Your task to perform on an android device: Open the calendar and show me this week's events Image 0: 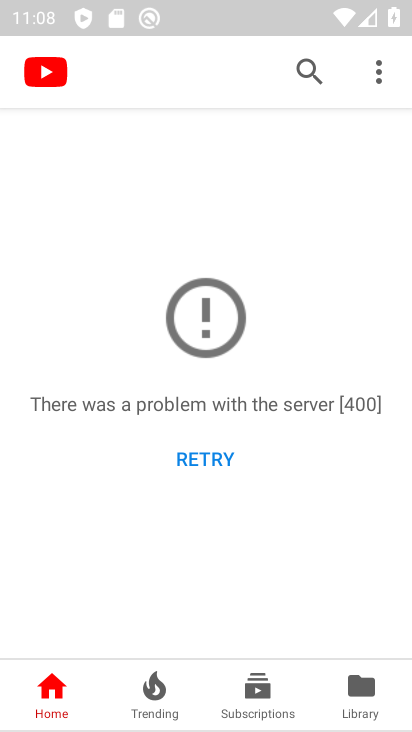
Step 0: press home button
Your task to perform on an android device: Open the calendar and show me this week's events Image 1: 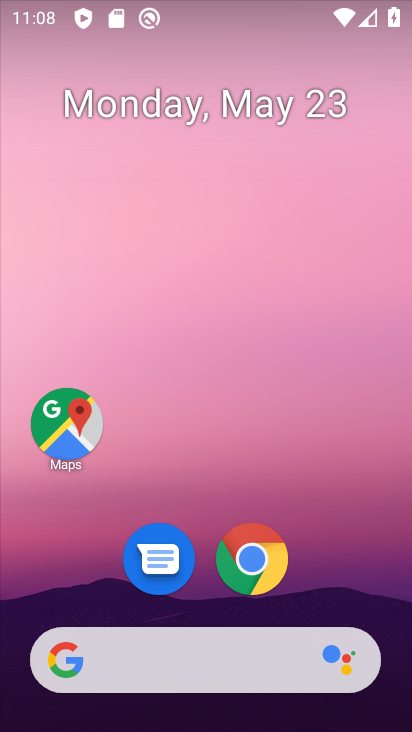
Step 1: drag from (397, 632) to (382, 264)
Your task to perform on an android device: Open the calendar and show me this week's events Image 2: 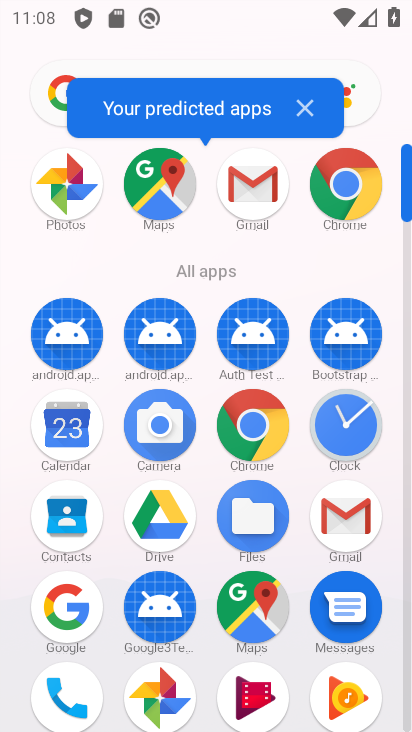
Step 2: click (64, 426)
Your task to perform on an android device: Open the calendar and show me this week's events Image 3: 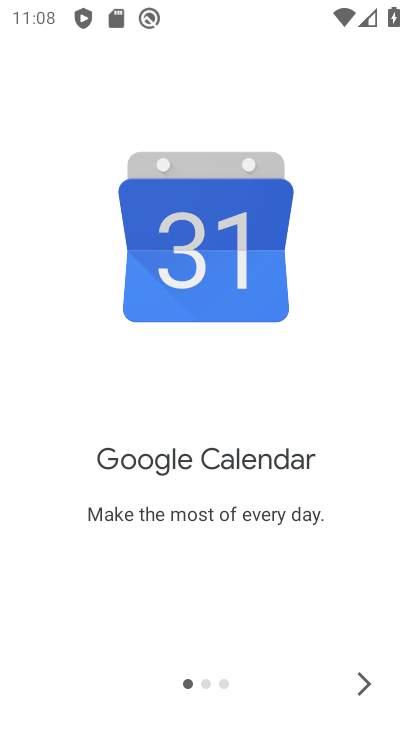
Step 3: click (355, 680)
Your task to perform on an android device: Open the calendar and show me this week's events Image 4: 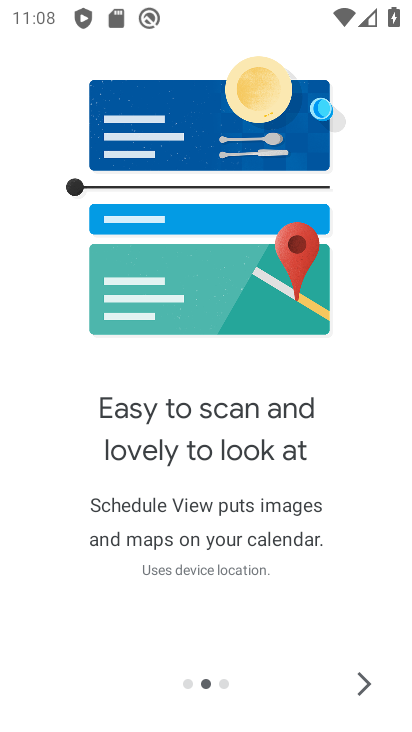
Step 4: click (349, 672)
Your task to perform on an android device: Open the calendar and show me this week's events Image 5: 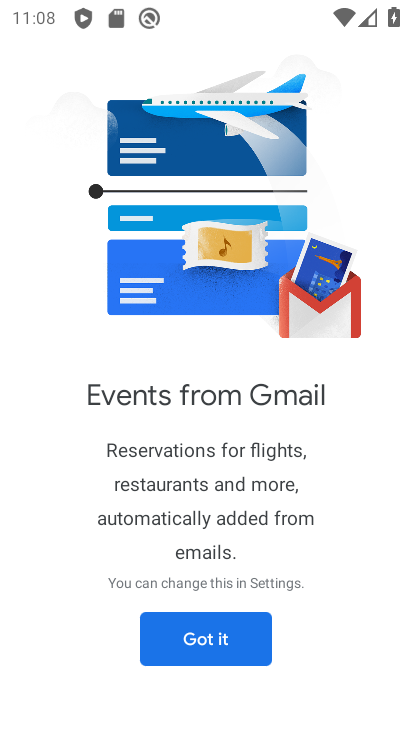
Step 5: click (192, 656)
Your task to perform on an android device: Open the calendar and show me this week's events Image 6: 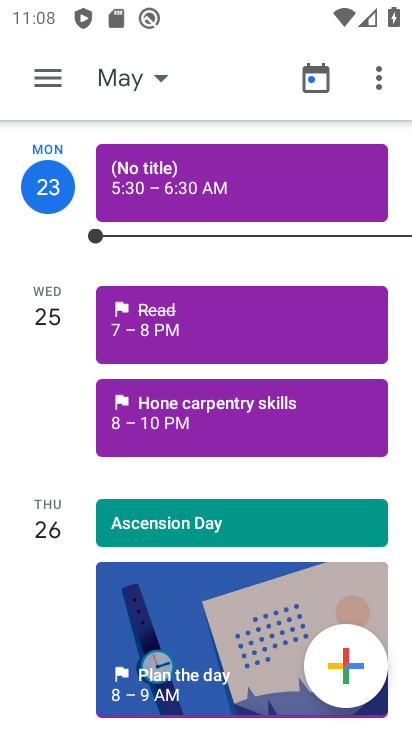
Step 6: click (159, 80)
Your task to perform on an android device: Open the calendar and show me this week's events Image 7: 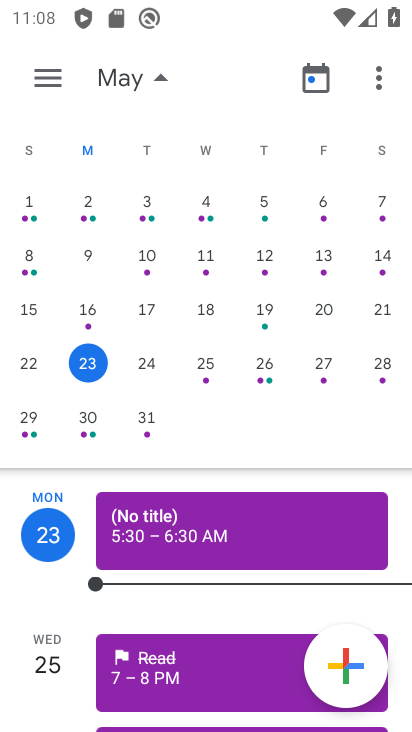
Step 7: click (48, 81)
Your task to perform on an android device: Open the calendar and show me this week's events Image 8: 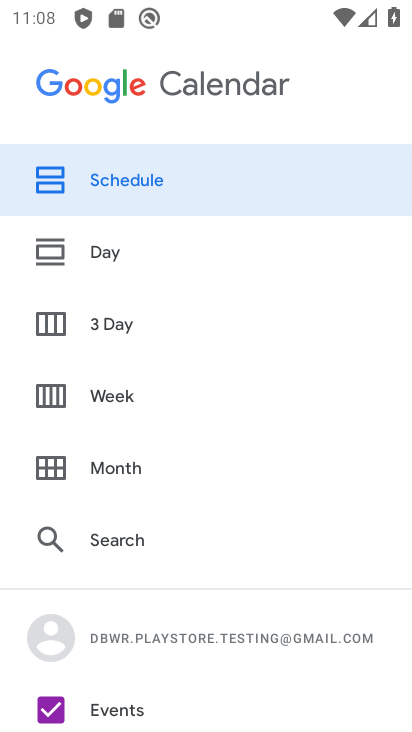
Step 8: click (96, 392)
Your task to perform on an android device: Open the calendar and show me this week's events Image 9: 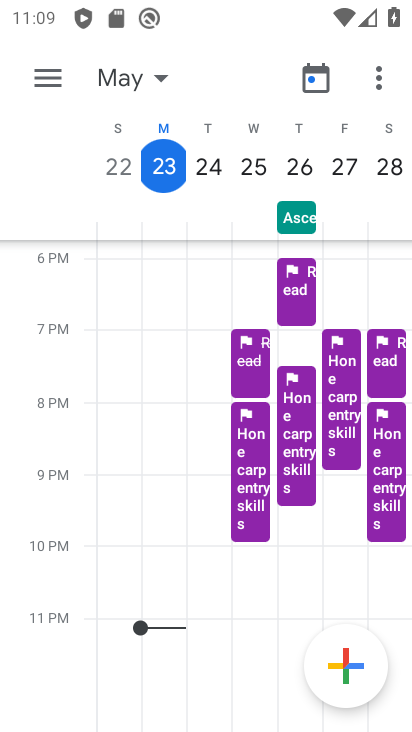
Step 9: task complete